Your task to perform on an android device: change notification settings in the gmail app Image 0: 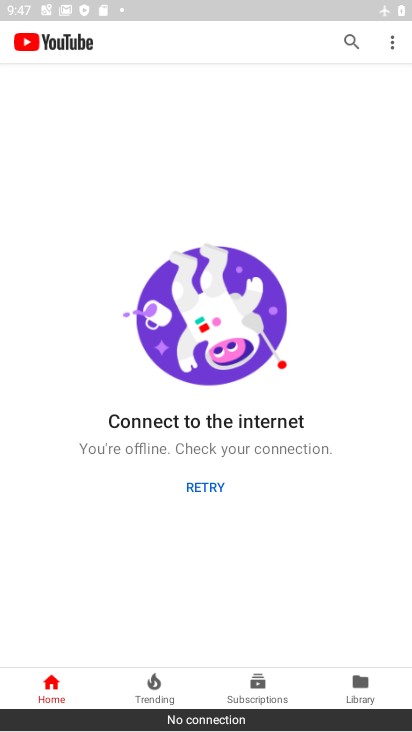
Step 0: press home button
Your task to perform on an android device: change notification settings in the gmail app Image 1: 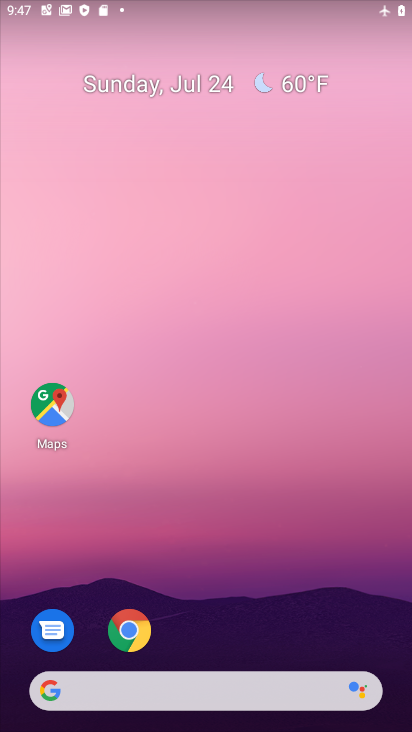
Step 1: drag from (224, 597) to (246, 315)
Your task to perform on an android device: change notification settings in the gmail app Image 2: 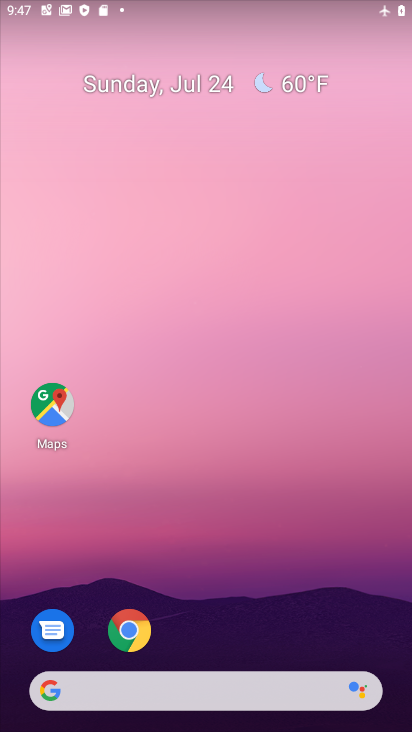
Step 2: drag from (239, 661) to (233, 19)
Your task to perform on an android device: change notification settings in the gmail app Image 3: 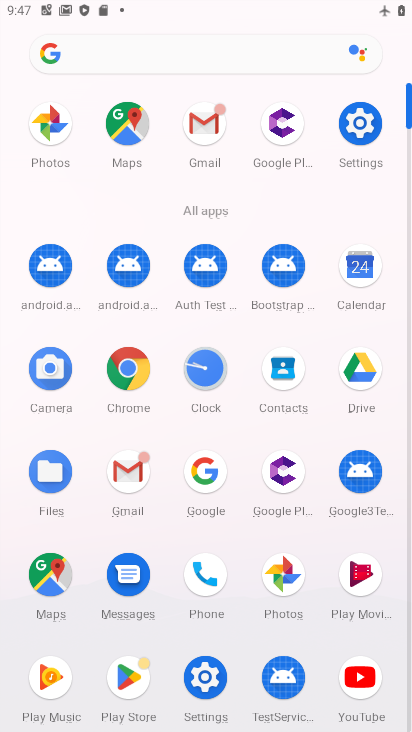
Step 3: click (127, 490)
Your task to perform on an android device: change notification settings in the gmail app Image 4: 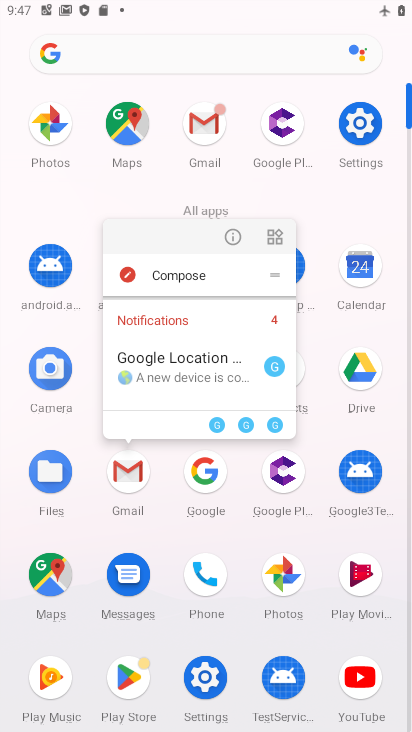
Step 4: click (132, 490)
Your task to perform on an android device: change notification settings in the gmail app Image 5: 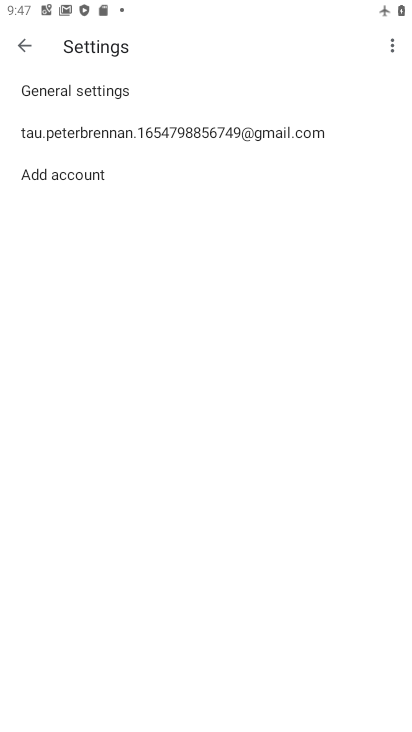
Step 5: click (82, 93)
Your task to perform on an android device: change notification settings in the gmail app Image 6: 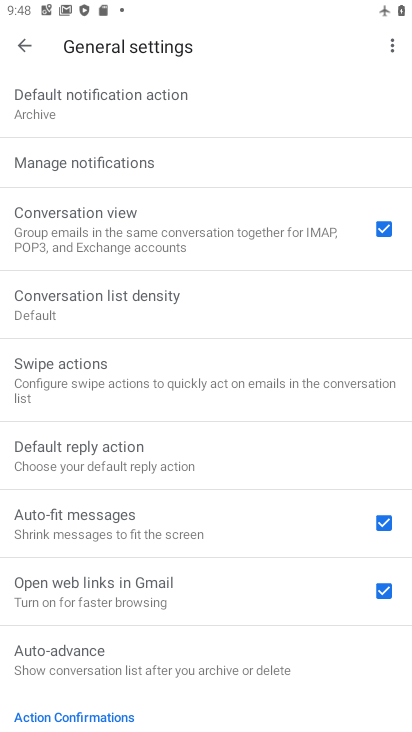
Step 6: click (110, 166)
Your task to perform on an android device: change notification settings in the gmail app Image 7: 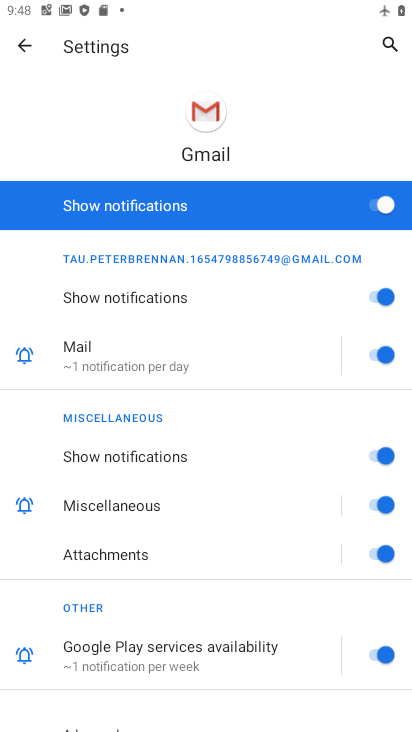
Step 7: click (356, 213)
Your task to perform on an android device: change notification settings in the gmail app Image 8: 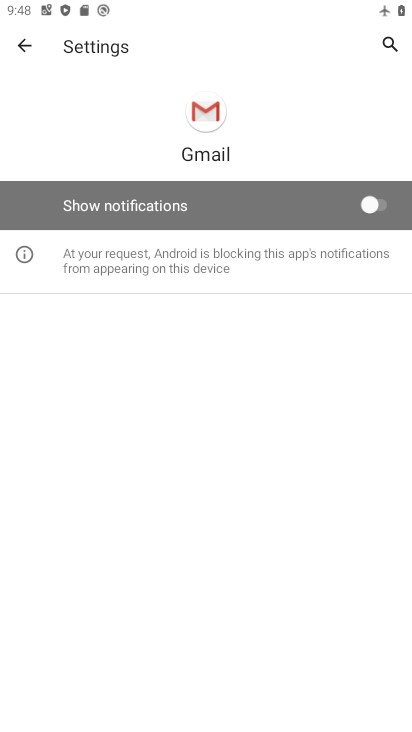
Step 8: task complete